Your task to perform on an android device: check the backup settings in the google photos Image 0: 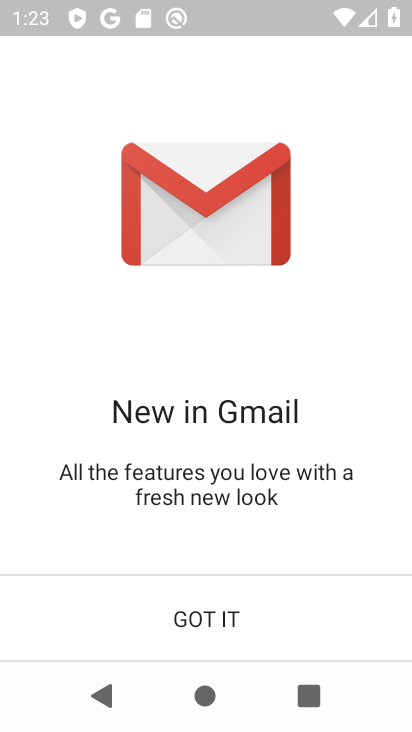
Step 0: press home button
Your task to perform on an android device: check the backup settings in the google photos Image 1: 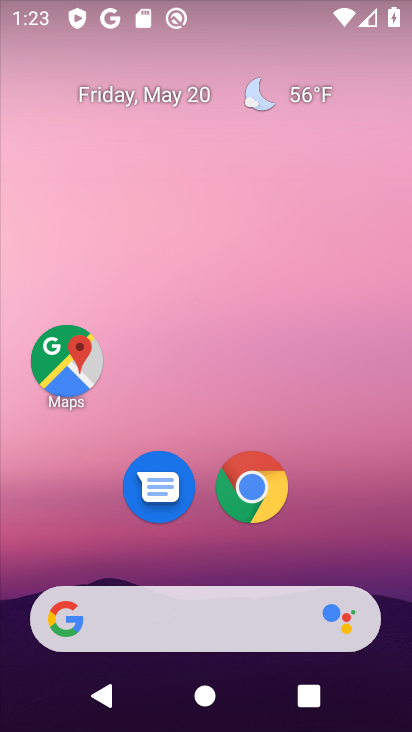
Step 1: drag from (207, 567) to (264, 41)
Your task to perform on an android device: check the backup settings in the google photos Image 2: 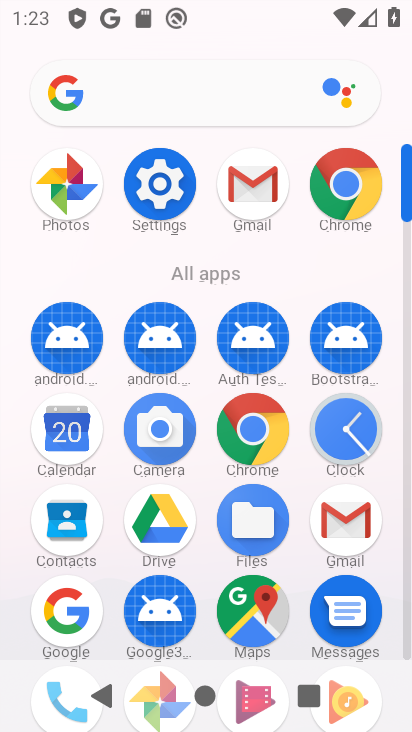
Step 2: drag from (206, 479) to (232, 74)
Your task to perform on an android device: check the backup settings in the google photos Image 3: 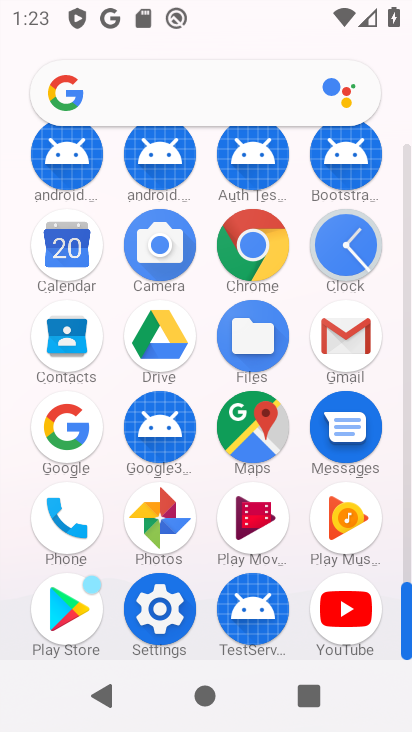
Step 3: click (159, 510)
Your task to perform on an android device: check the backup settings in the google photos Image 4: 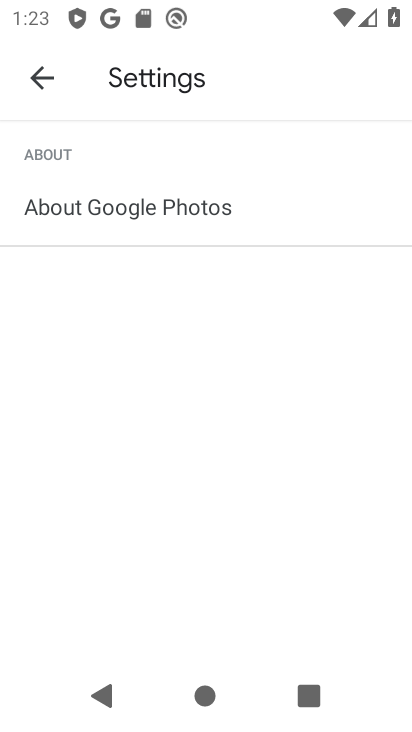
Step 4: click (54, 79)
Your task to perform on an android device: check the backup settings in the google photos Image 5: 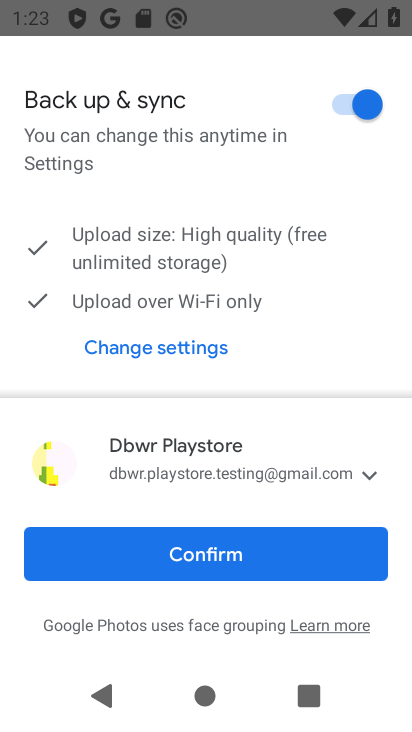
Step 5: click (205, 558)
Your task to perform on an android device: check the backup settings in the google photos Image 6: 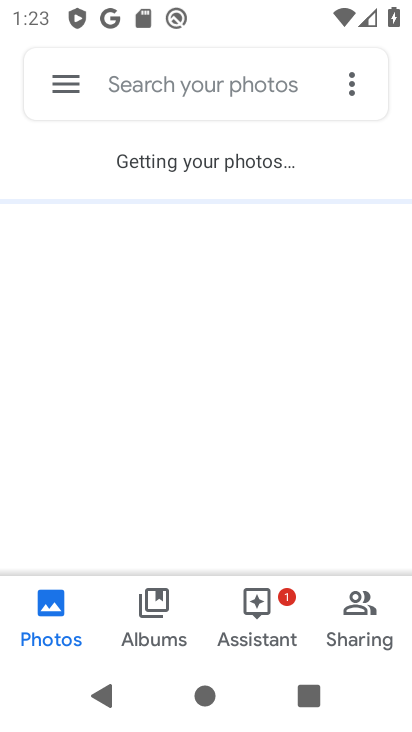
Step 6: click (352, 85)
Your task to perform on an android device: check the backup settings in the google photos Image 7: 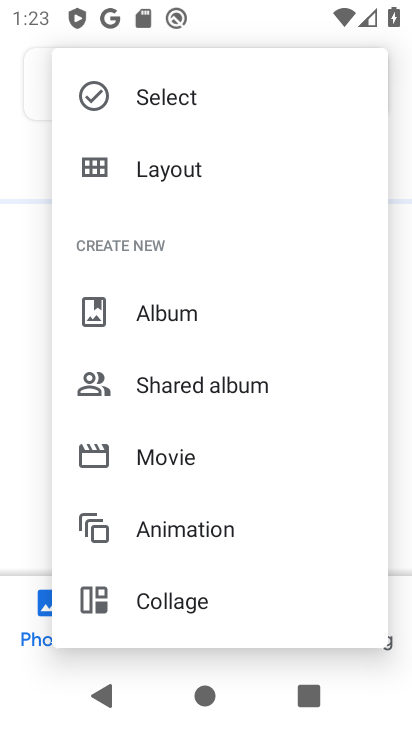
Step 7: click (27, 385)
Your task to perform on an android device: check the backup settings in the google photos Image 8: 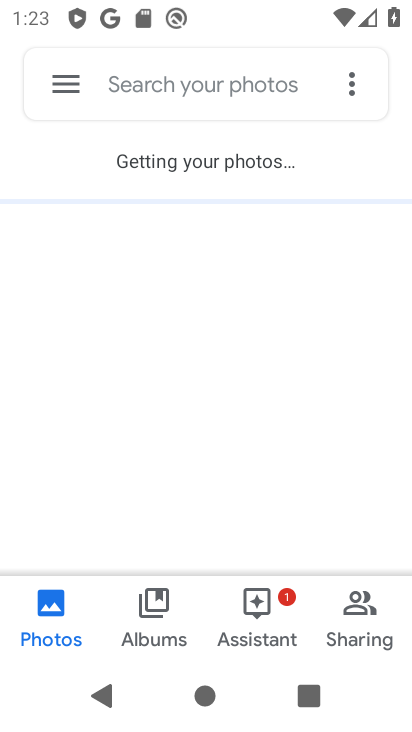
Step 8: click (66, 81)
Your task to perform on an android device: check the backup settings in the google photos Image 9: 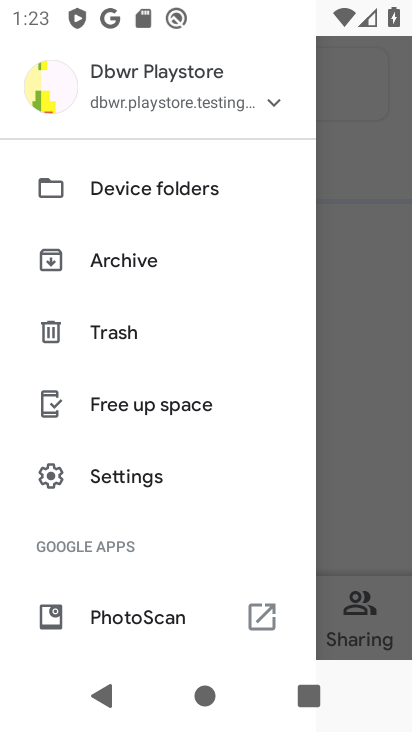
Step 9: click (130, 474)
Your task to perform on an android device: check the backup settings in the google photos Image 10: 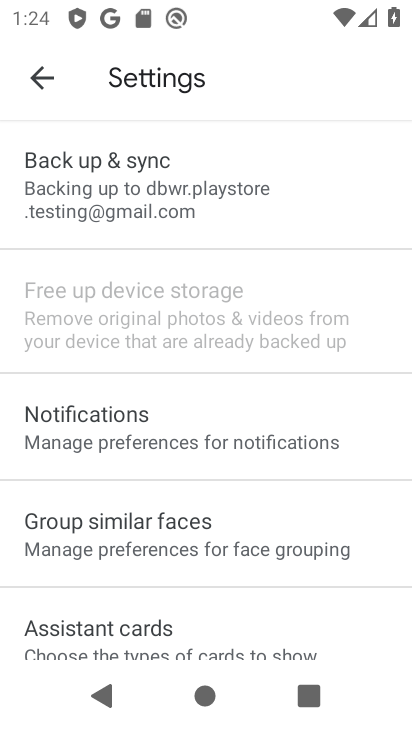
Step 10: click (126, 175)
Your task to perform on an android device: check the backup settings in the google photos Image 11: 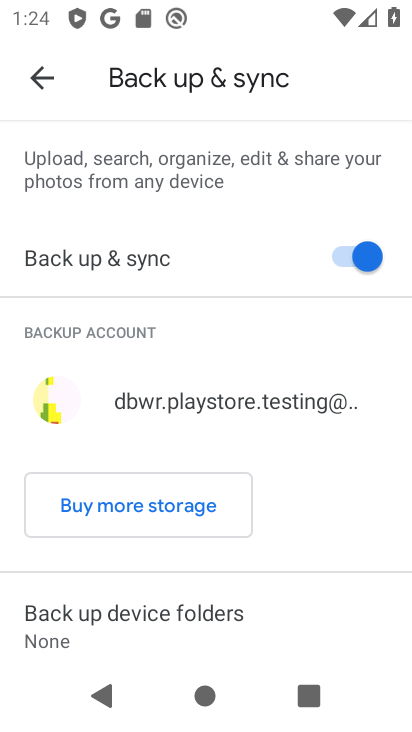
Step 11: task complete